Your task to perform on an android device: Do I have any events tomorrow? Image 0: 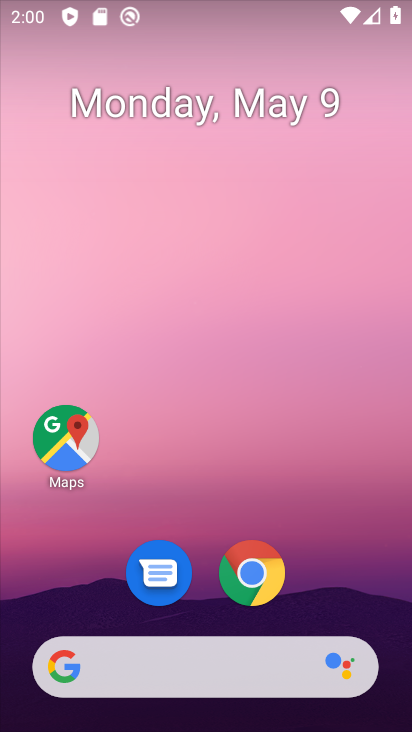
Step 0: drag from (379, 635) to (197, 51)
Your task to perform on an android device: Do I have any events tomorrow? Image 1: 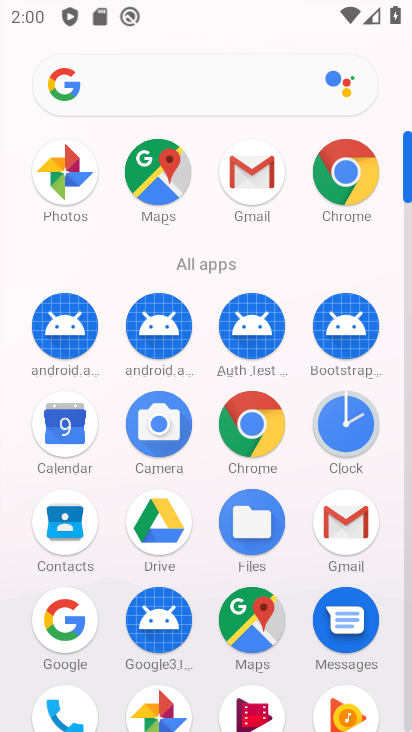
Step 1: click (61, 422)
Your task to perform on an android device: Do I have any events tomorrow? Image 2: 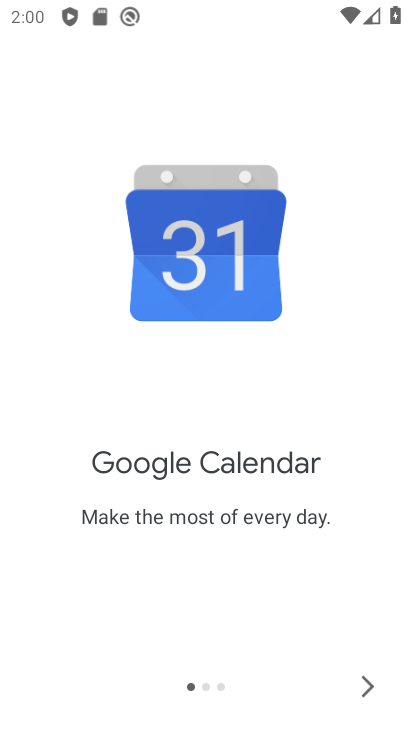
Step 2: click (369, 687)
Your task to perform on an android device: Do I have any events tomorrow? Image 3: 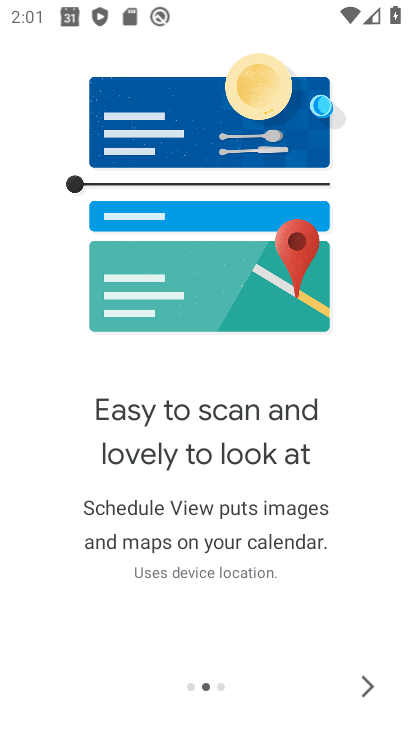
Step 3: click (363, 677)
Your task to perform on an android device: Do I have any events tomorrow? Image 4: 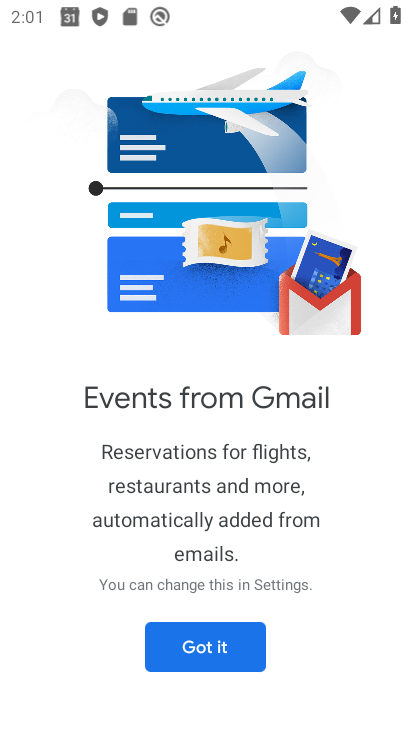
Step 4: click (194, 639)
Your task to perform on an android device: Do I have any events tomorrow? Image 5: 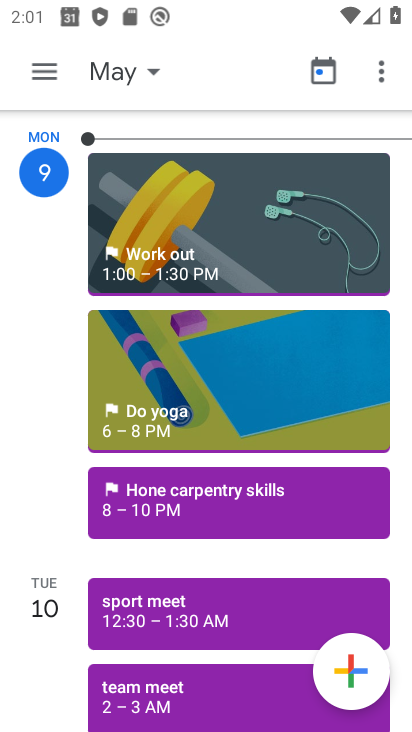
Step 5: drag from (130, 450) to (79, 215)
Your task to perform on an android device: Do I have any events tomorrow? Image 6: 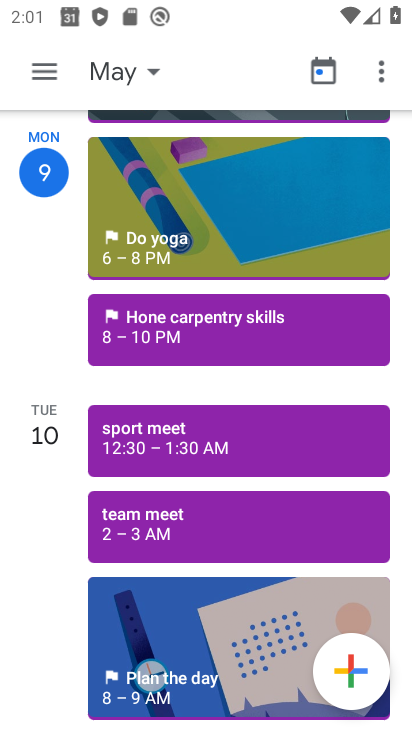
Step 6: drag from (122, 479) to (96, 218)
Your task to perform on an android device: Do I have any events tomorrow? Image 7: 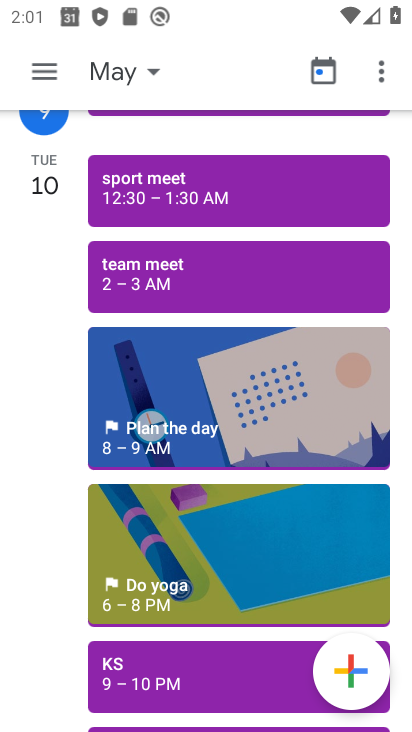
Step 7: drag from (112, 429) to (84, 152)
Your task to perform on an android device: Do I have any events tomorrow? Image 8: 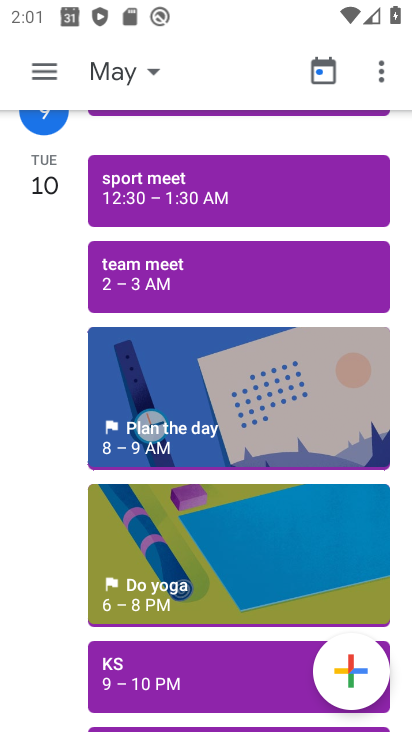
Step 8: drag from (191, 225) to (191, 134)
Your task to perform on an android device: Do I have any events tomorrow? Image 9: 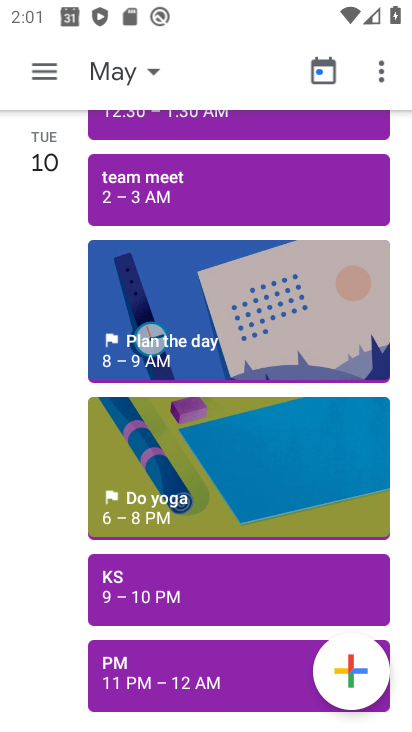
Step 9: drag from (207, 487) to (202, 196)
Your task to perform on an android device: Do I have any events tomorrow? Image 10: 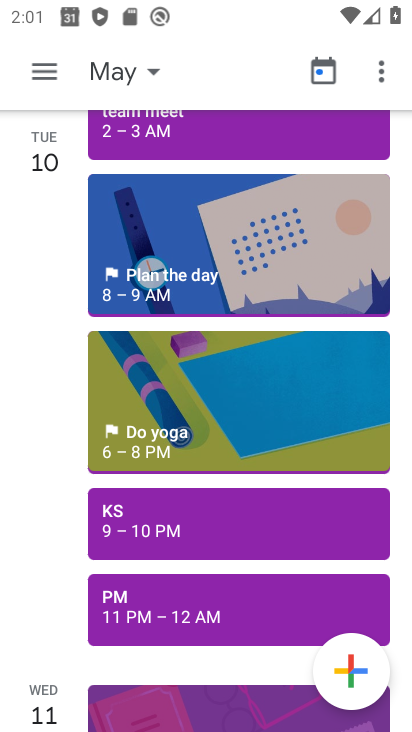
Step 10: drag from (198, 514) to (196, 291)
Your task to perform on an android device: Do I have any events tomorrow? Image 11: 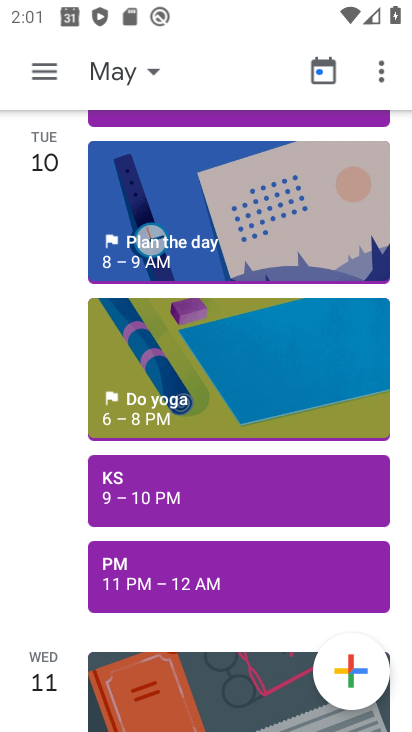
Step 11: drag from (233, 503) to (324, 206)
Your task to perform on an android device: Do I have any events tomorrow? Image 12: 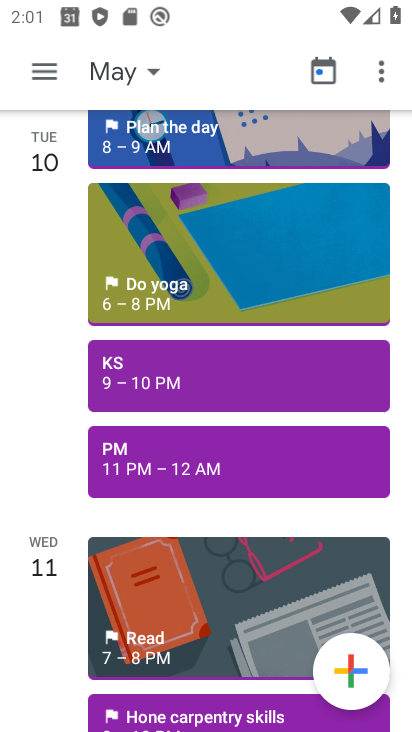
Step 12: drag from (260, 258) to (268, 161)
Your task to perform on an android device: Do I have any events tomorrow? Image 13: 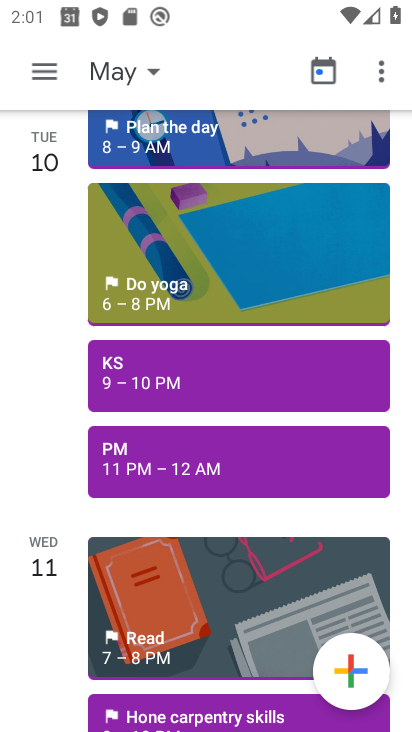
Step 13: drag from (124, 405) to (142, 108)
Your task to perform on an android device: Do I have any events tomorrow? Image 14: 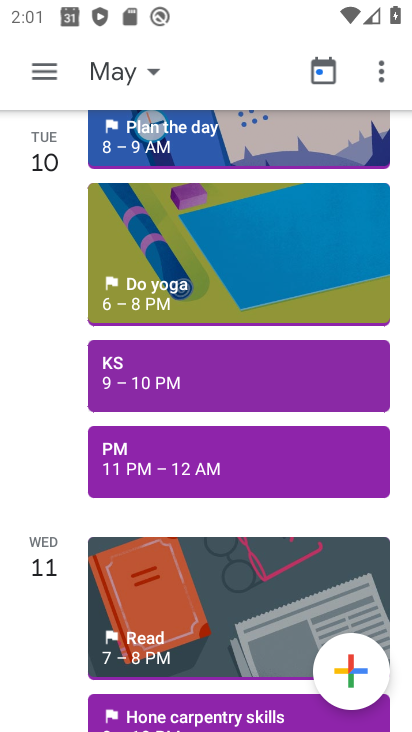
Step 14: drag from (217, 478) to (272, 110)
Your task to perform on an android device: Do I have any events tomorrow? Image 15: 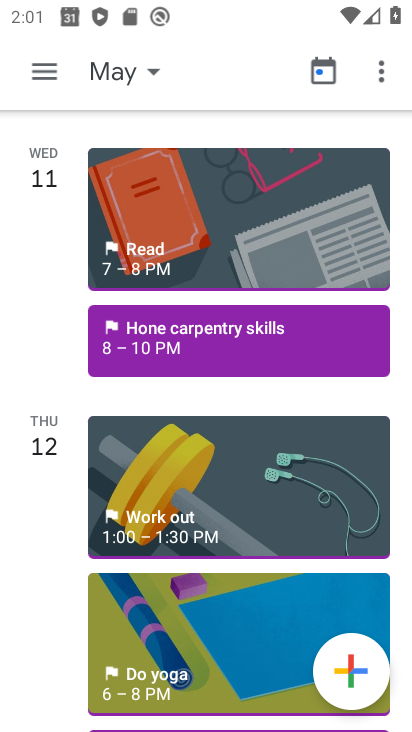
Step 15: drag from (232, 381) to (229, 216)
Your task to perform on an android device: Do I have any events tomorrow? Image 16: 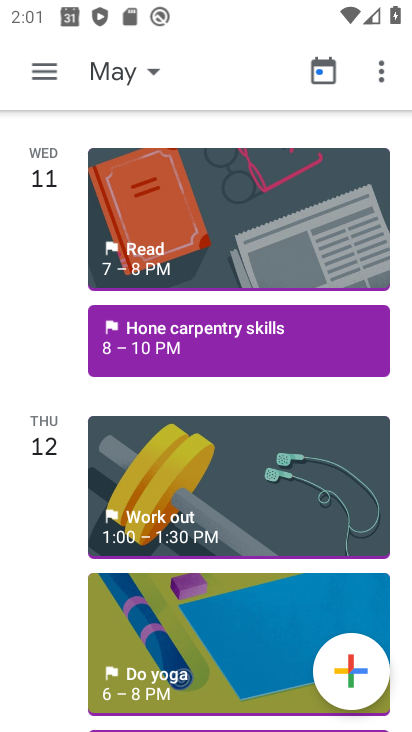
Step 16: drag from (226, 542) to (171, 335)
Your task to perform on an android device: Do I have any events tomorrow? Image 17: 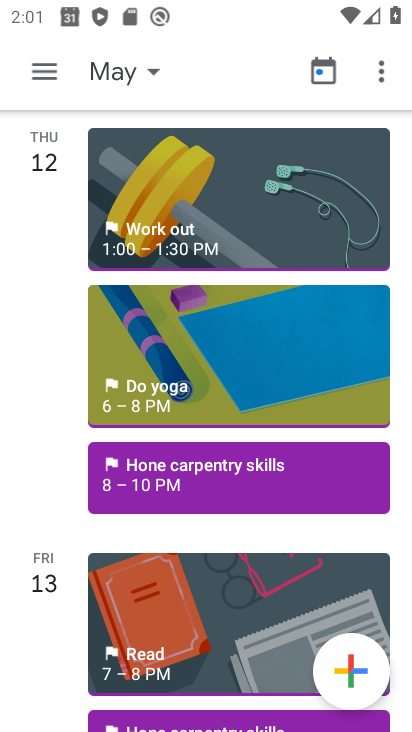
Step 17: click (178, 220)
Your task to perform on an android device: Do I have any events tomorrow? Image 18: 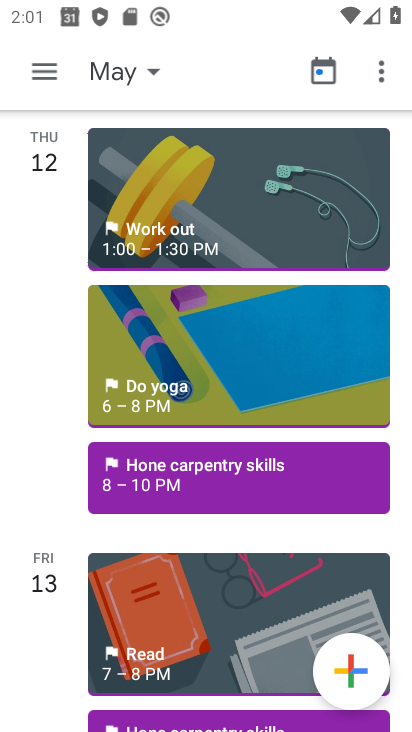
Step 18: click (178, 220)
Your task to perform on an android device: Do I have any events tomorrow? Image 19: 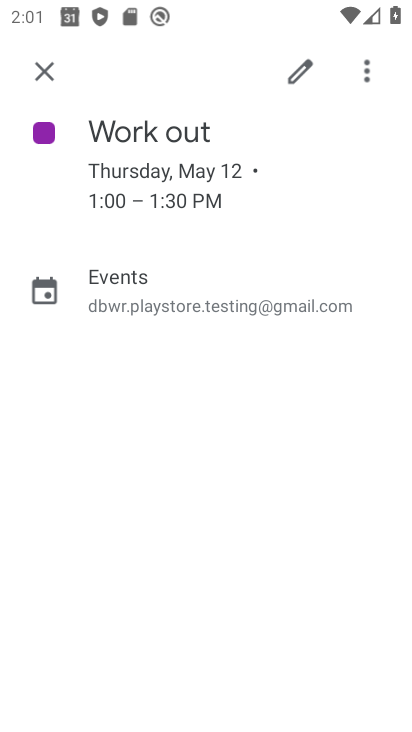
Step 19: click (32, 66)
Your task to perform on an android device: Do I have any events tomorrow? Image 20: 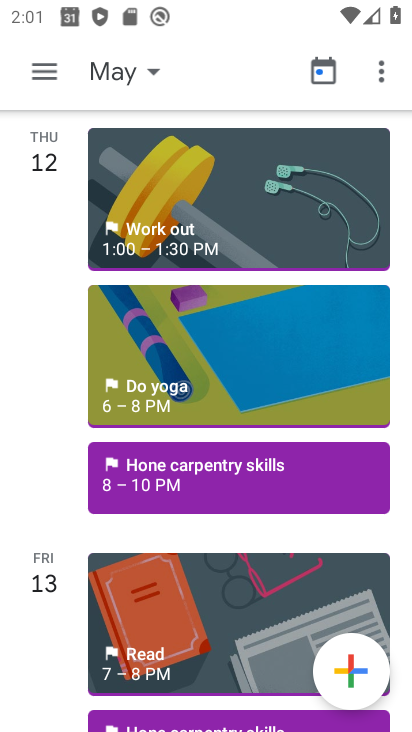
Step 20: task complete